Your task to perform on an android device: Go to ESPN.com Image 0: 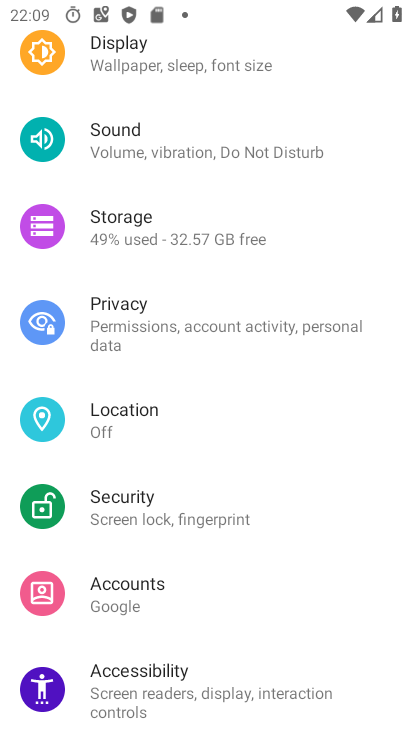
Step 0: press home button
Your task to perform on an android device: Go to ESPN.com Image 1: 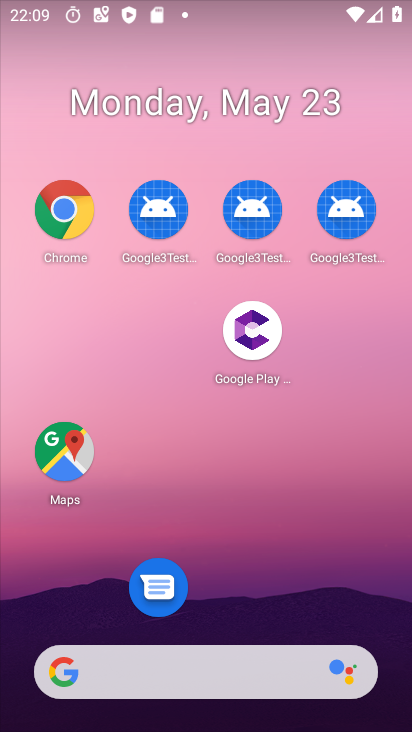
Step 1: click (75, 201)
Your task to perform on an android device: Go to ESPN.com Image 2: 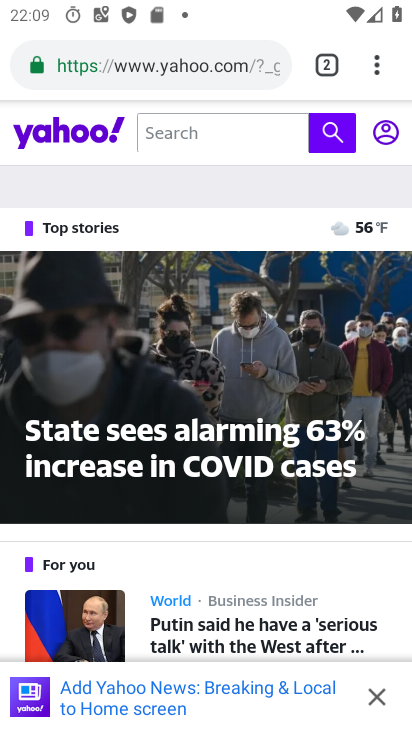
Step 2: click (334, 68)
Your task to perform on an android device: Go to ESPN.com Image 3: 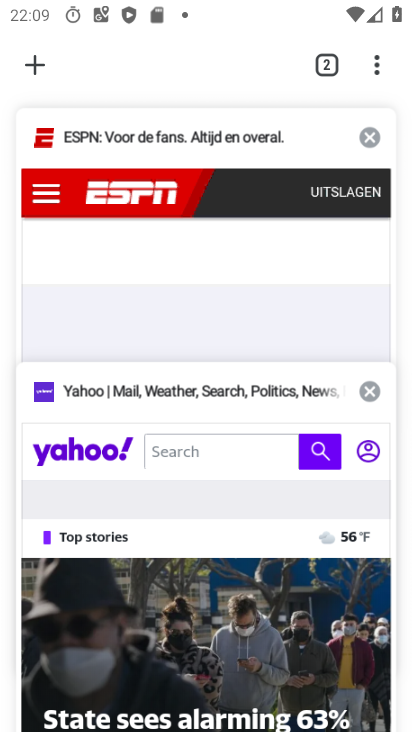
Step 3: click (159, 207)
Your task to perform on an android device: Go to ESPN.com Image 4: 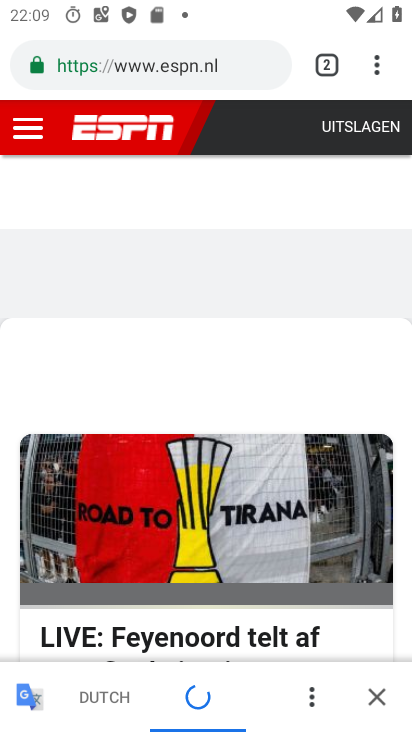
Step 4: task complete